Your task to perform on an android device: Search for the best-rated coffee table on Crate & Barrel Image 0: 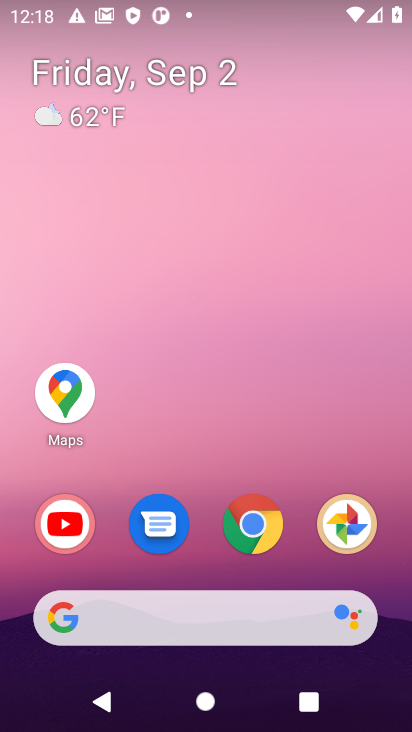
Step 0: click (258, 531)
Your task to perform on an android device: Search for the best-rated coffee table on Crate & Barrel Image 1: 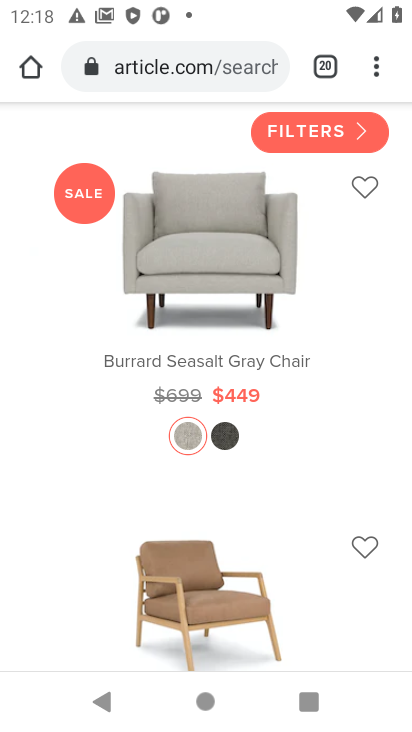
Step 1: click (322, 74)
Your task to perform on an android device: Search for the best-rated coffee table on Crate & Barrel Image 2: 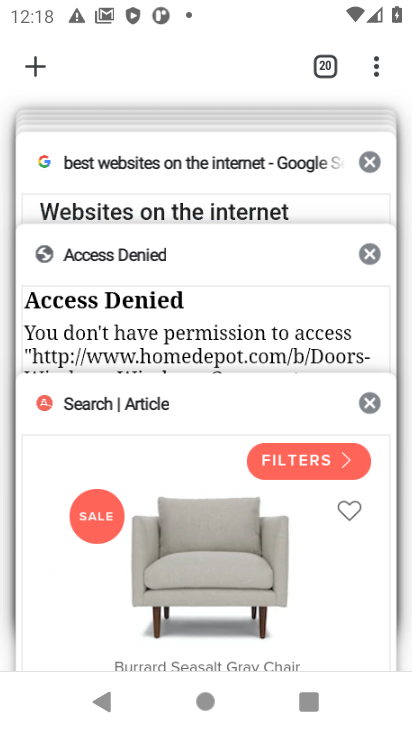
Step 2: drag from (210, 163) to (269, 624)
Your task to perform on an android device: Search for the best-rated coffee table on Crate & Barrel Image 3: 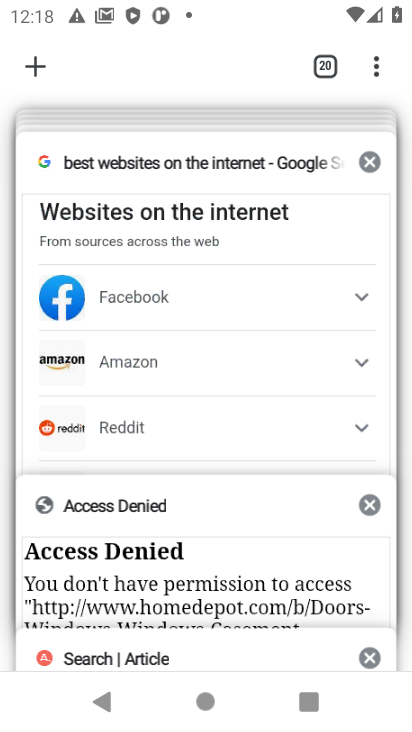
Step 3: drag from (213, 213) to (212, 687)
Your task to perform on an android device: Search for the best-rated coffee table on Crate & Barrel Image 4: 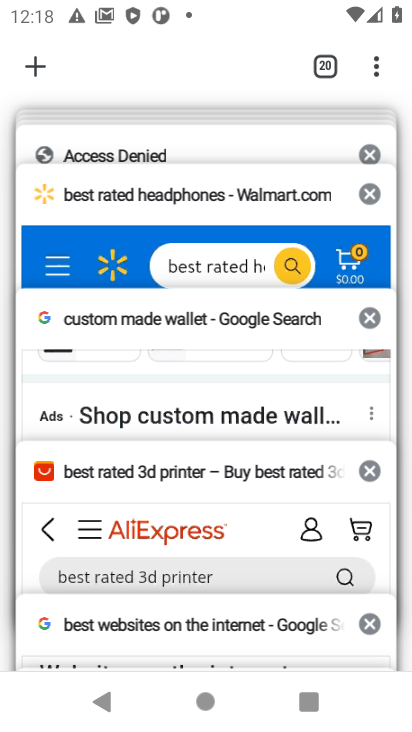
Step 4: drag from (185, 194) to (179, 578)
Your task to perform on an android device: Search for the best-rated coffee table on Crate & Barrel Image 5: 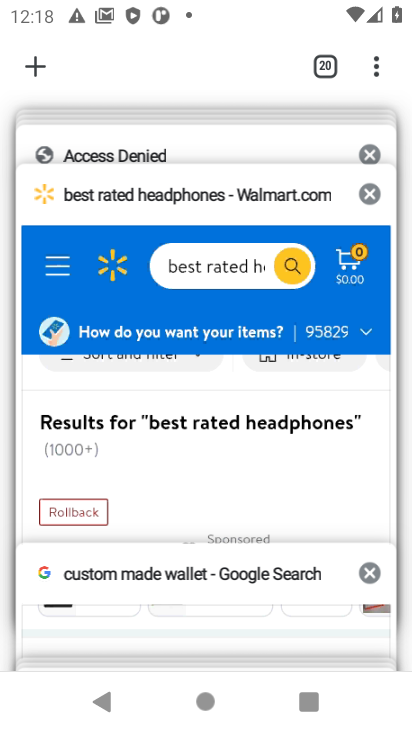
Step 5: drag from (131, 182) to (158, 670)
Your task to perform on an android device: Search for the best-rated coffee table on Crate & Barrel Image 6: 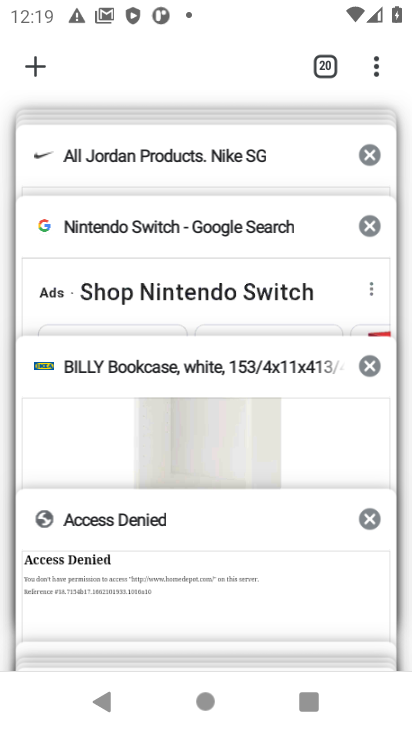
Step 6: drag from (167, 147) to (164, 672)
Your task to perform on an android device: Search for the best-rated coffee table on Crate & Barrel Image 7: 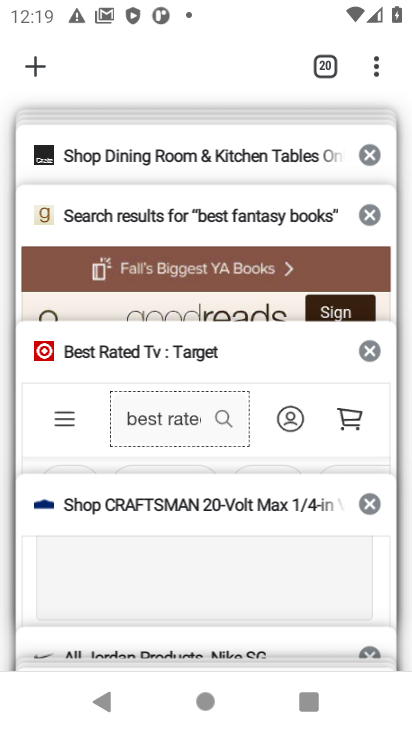
Step 7: click (156, 145)
Your task to perform on an android device: Search for the best-rated coffee table on Crate & Barrel Image 8: 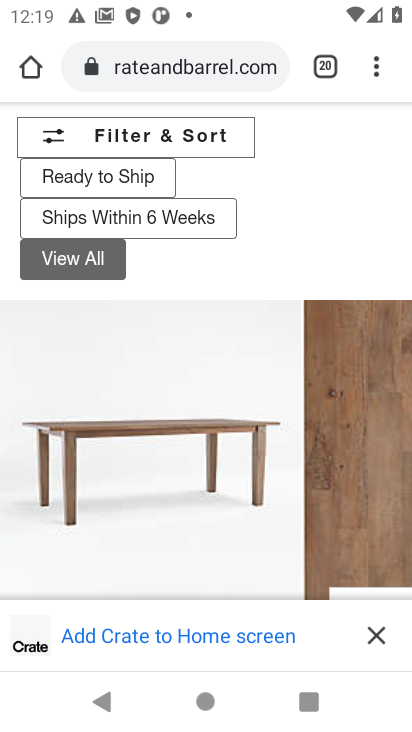
Step 8: drag from (329, 307) to (330, 447)
Your task to perform on an android device: Search for the best-rated coffee table on Crate & Barrel Image 9: 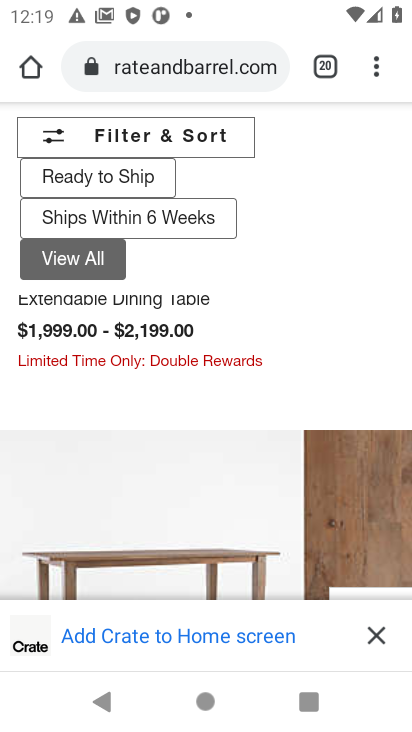
Step 9: drag from (302, 146) to (313, 620)
Your task to perform on an android device: Search for the best-rated coffee table on Crate & Barrel Image 10: 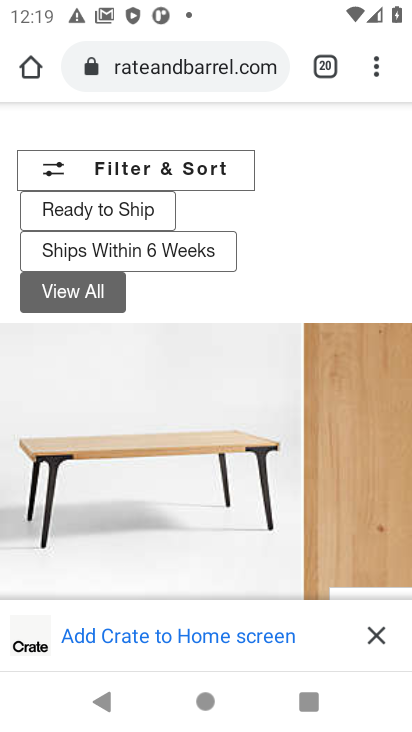
Step 10: drag from (352, 168) to (360, 501)
Your task to perform on an android device: Search for the best-rated coffee table on Crate & Barrel Image 11: 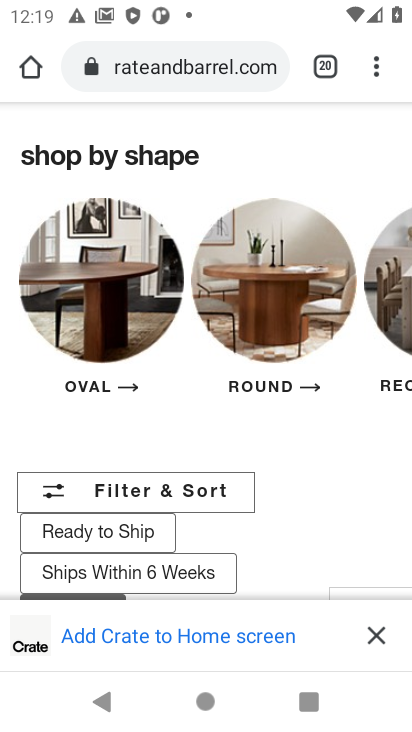
Step 11: drag from (329, 155) to (353, 525)
Your task to perform on an android device: Search for the best-rated coffee table on Crate & Barrel Image 12: 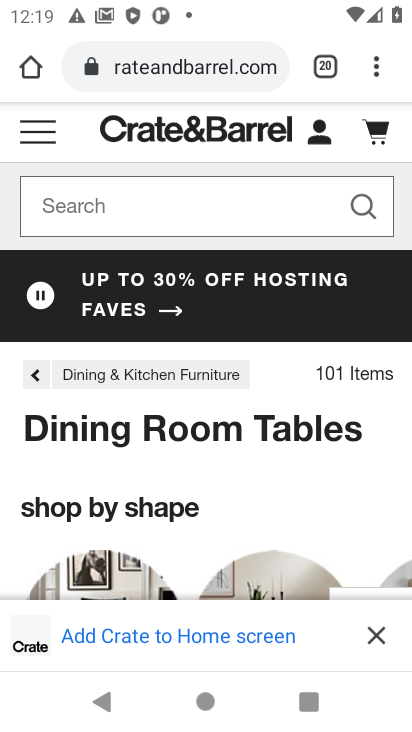
Step 12: click (96, 204)
Your task to perform on an android device: Search for the best-rated coffee table on Crate & Barrel Image 13: 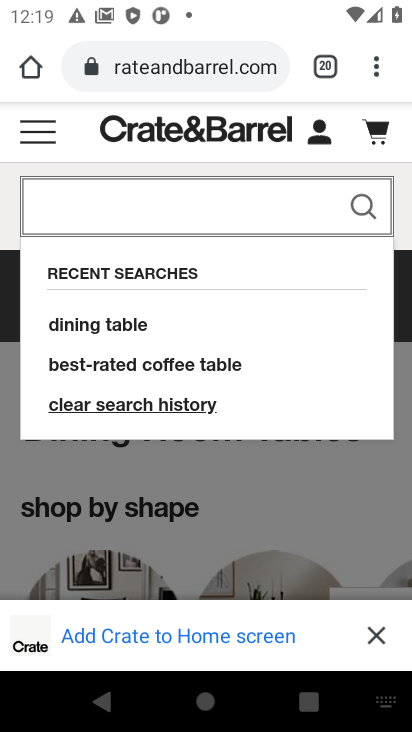
Step 13: click (70, 367)
Your task to perform on an android device: Search for the best-rated coffee table on Crate & Barrel Image 14: 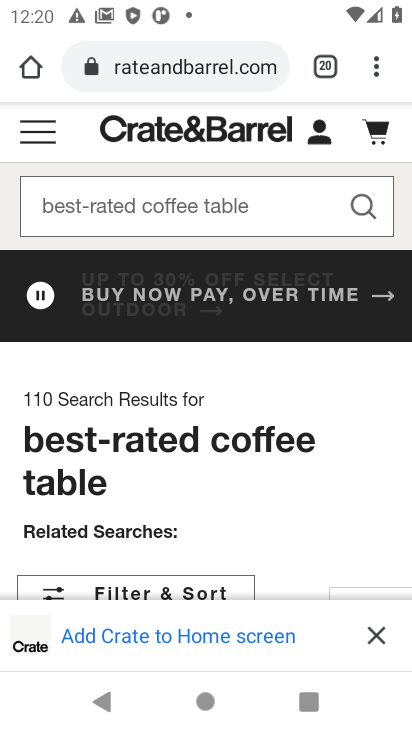
Step 14: task complete